Your task to perform on an android device: turn on bluetooth scan Image 0: 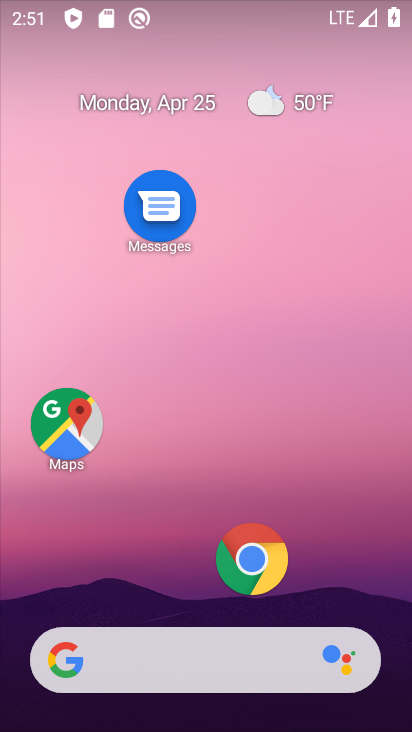
Step 0: drag from (141, 563) to (226, 2)
Your task to perform on an android device: turn on bluetooth scan Image 1: 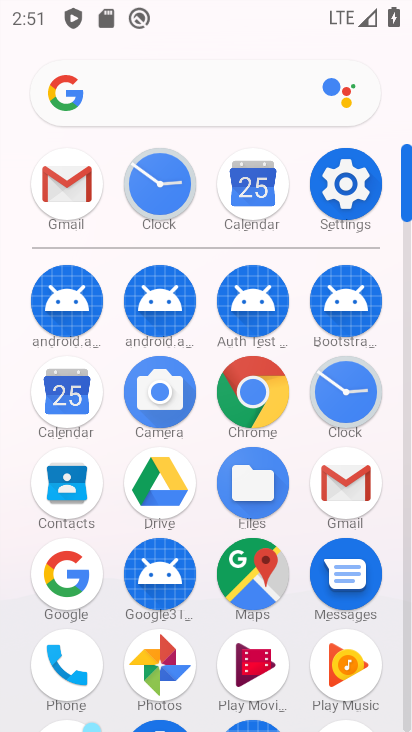
Step 1: click (356, 202)
Your task to perform on an android device: turn on bluetooth scan Image 2: 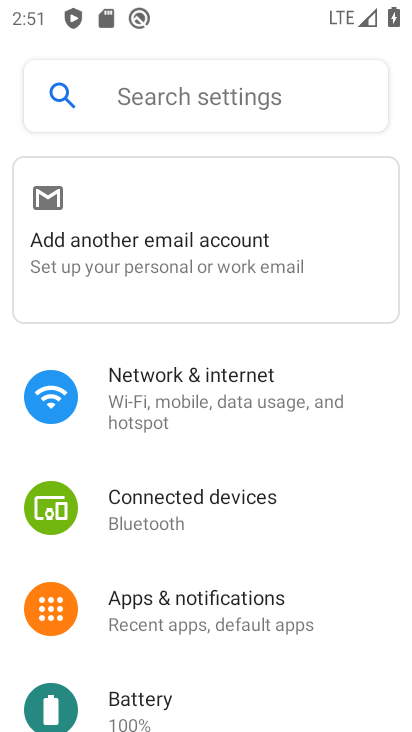
Step 2: drag from (202, 517) to (274, 272)
Your task to perform on an android device: turn on bluetooth scan Image 3: 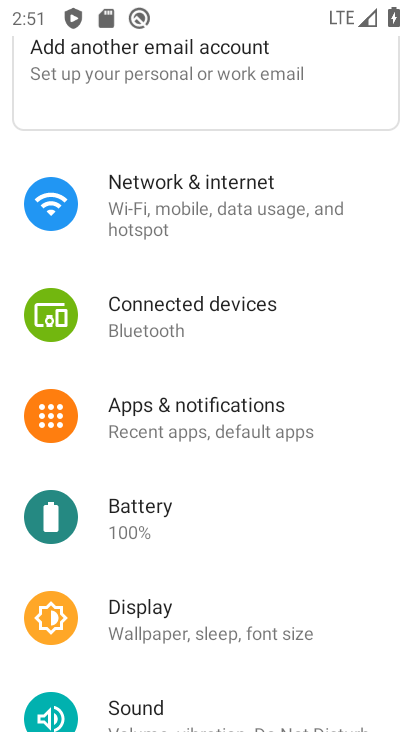
Step 3: drag from (219, 470) to (298, 37)
Your task to perform on an android device: turn on bluetooth scan Image 4: 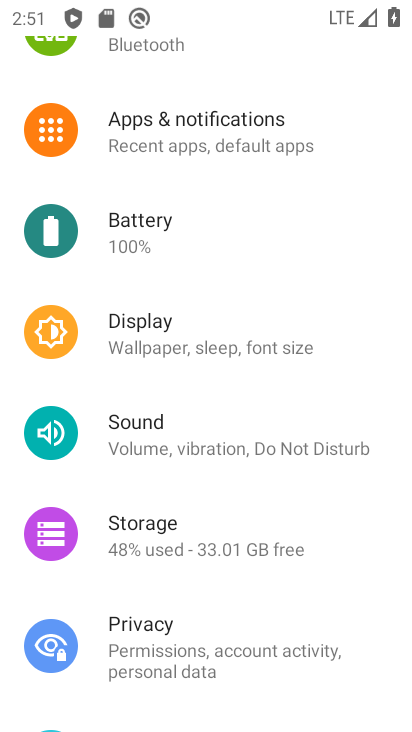
Step 4: drag from (195, 626) to (235, 298)
Your task to perform on an android device: turn on bluetooth scan Image 5: 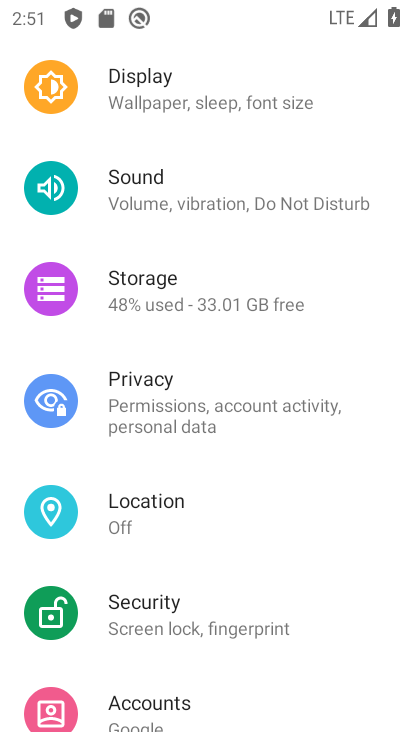
Step 5: click (176, 524)
Your task to perform on an android device: turn on bluetooth scan Image 6: 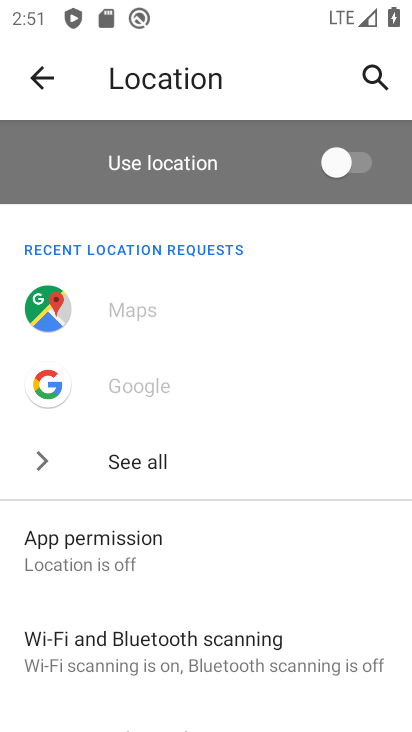
Step 6: click (143, 646)
Your task to perform on an android device: turn on bluetooth scan Image 7: 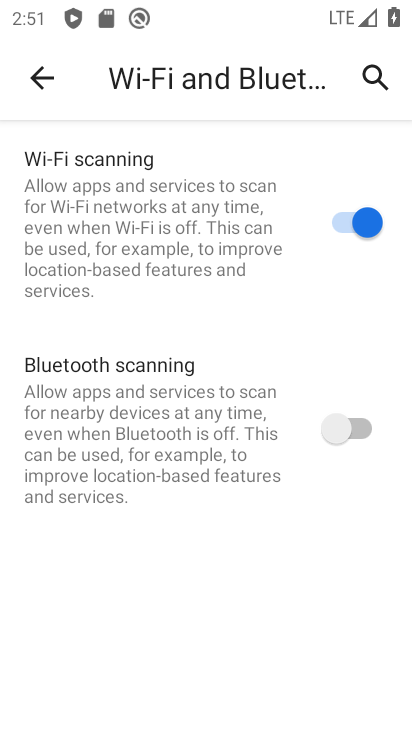
Step 7: click (376, 423)
Your task to perform on an android device: turn on bluetooth scan Image 8: 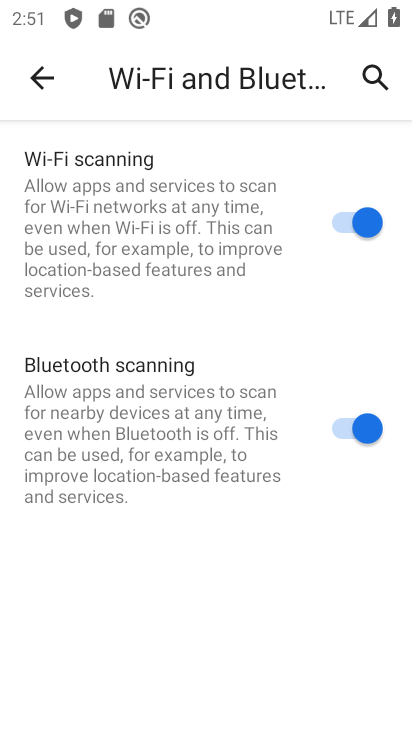
Step 8: task complete